Your task to perform on an android device: turn on bluetooth scan Image 0: 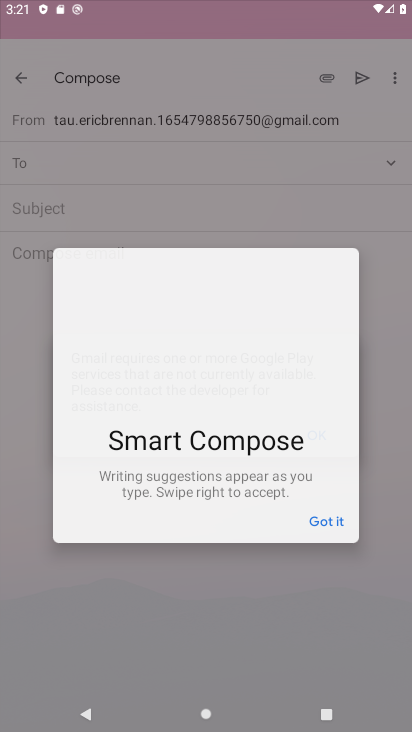
Step 0: drag from (215, 350) to (215, 118)
Your task to perform on an android device: turn on bluetooth scan Image 1: 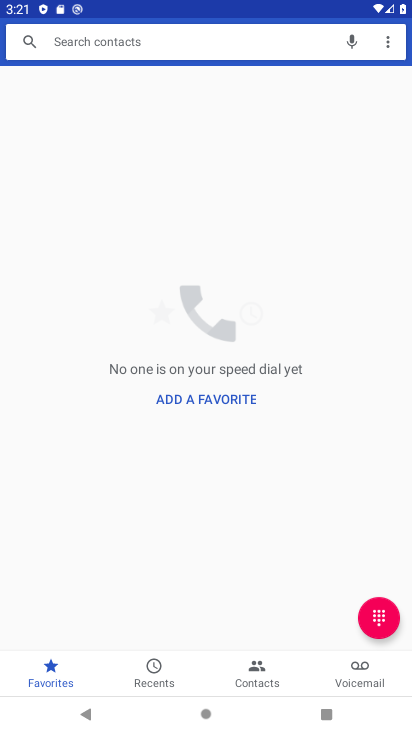
Step 1: press home button
Your task to perform on an android device: turn on bluetooth scan Image 2: 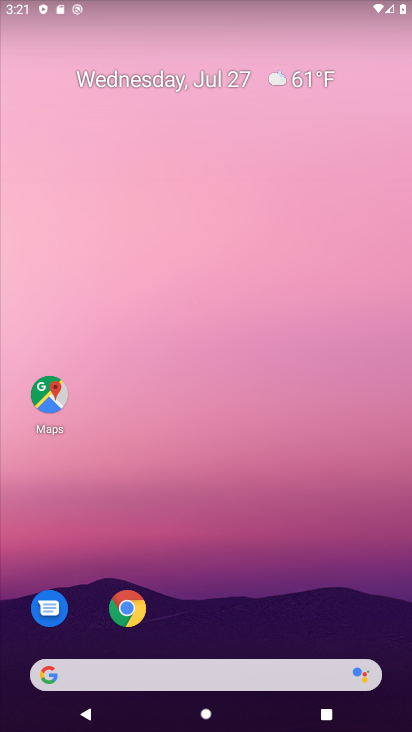
Step 2: drag from (222, 504) to (225, 194)
Your task to perform on an android device: turn on bluetooth scan Image 3: 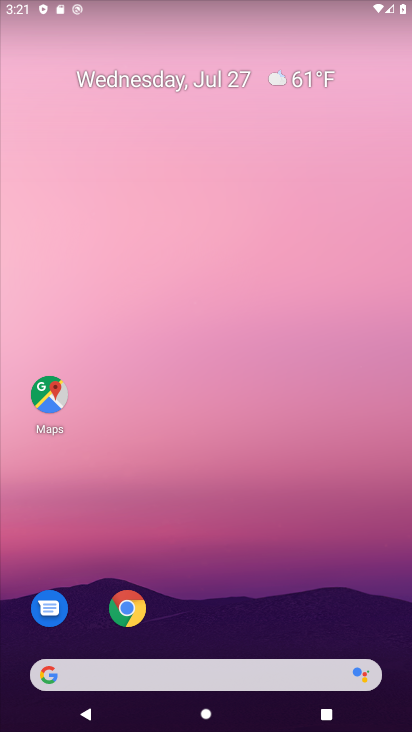
Step 3: drag from (229, 722) to (230, 94)
Your task to perform on an android device: turn on bluetooth scan Image 4: 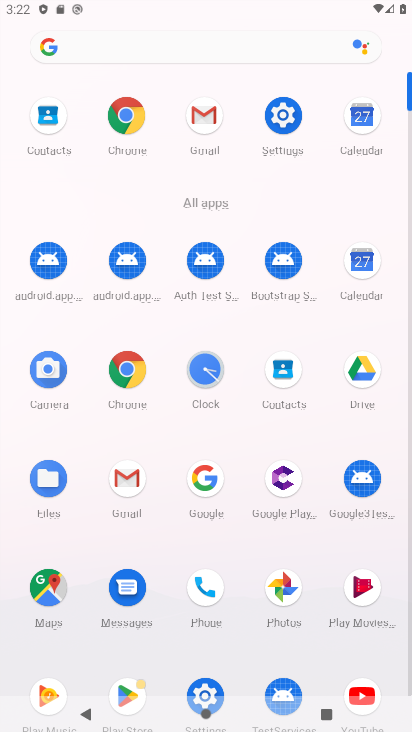
Step 4: click (282, 108)
Your task to perform on an android device: turn on bluetooth scan Image 5: 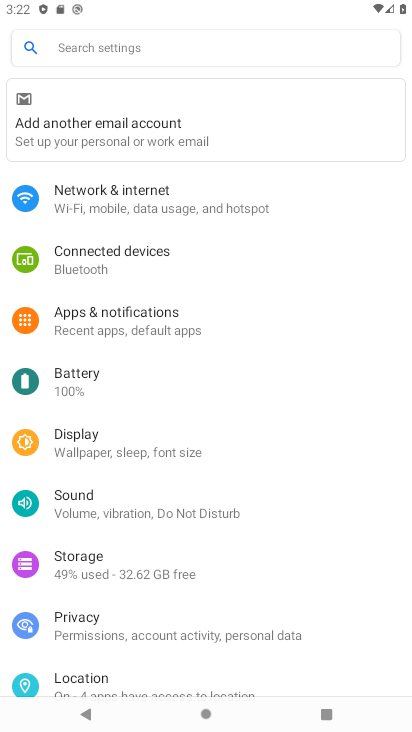
Step 5: click (80, 682)
Your task to perform on an android device: turn on bluetooth scan Image 6: 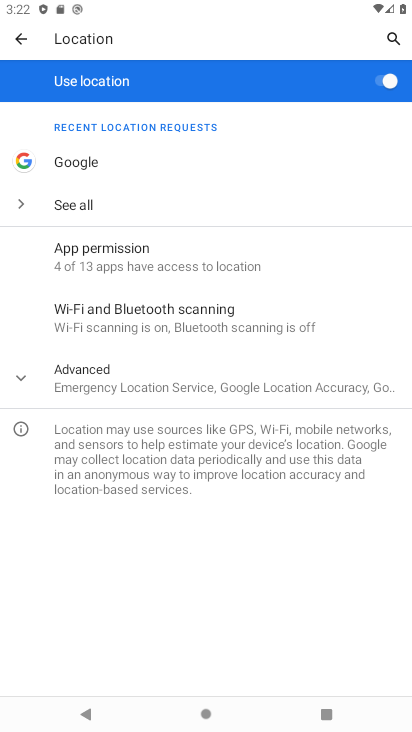
Step 6: click (131, 312)
Your task to perform on an android device: turn on bluetooth scan Image 7: 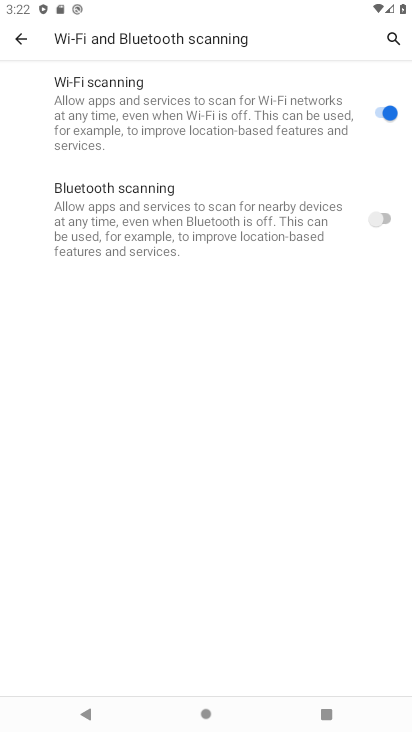
Step 7: click (387, 217)
Your task to perform on an android device: turn on bluetooth scan Image 8: 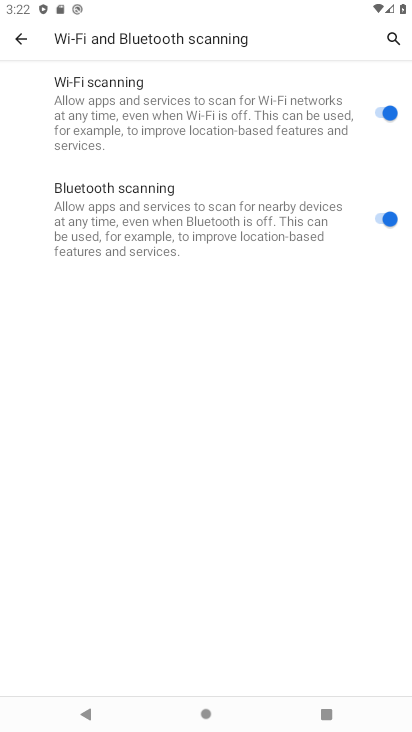
Step 8: task complete